Your task to perform on an android device: toggle notification dots Image 0: 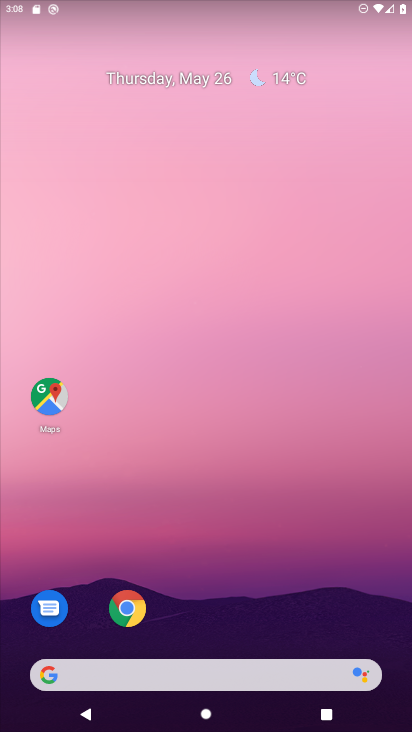
Step 0: drag from (295, 386) to (329, 70)
Your task to perform on an android device: toggle notification dots Image 1: 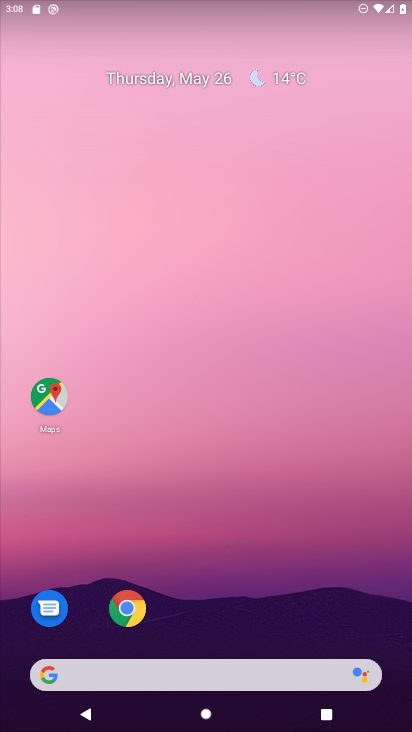
Step 1: drag from (294, 504) to (217, 3)
Your task to perform on an android device: toggle notification dots Image 2: 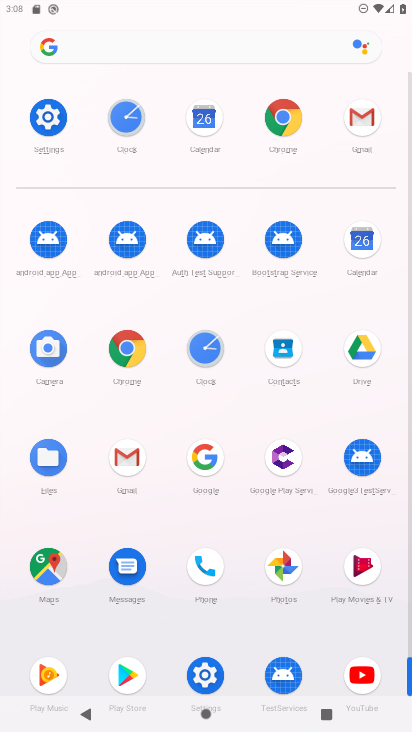
Step 2: click (48, 124)
Your task to perform on an android device: toggle notification dots Image 3: 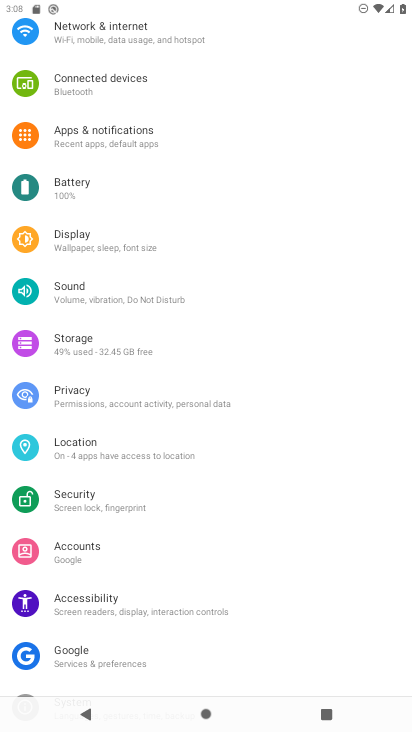
Step 3: click (107, 146)
Your task to perform on an android device: toggle notification dots Image 4: 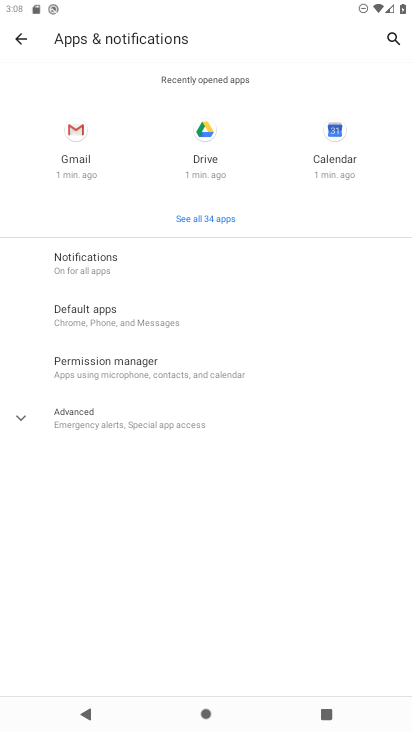
Step 4: click (72, 265)
Your task to perform on an android device: toggle notification dots Image 5: 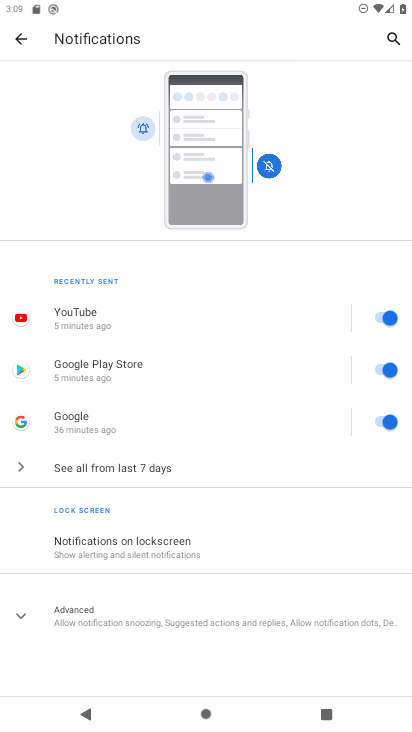
Step 5: drag from (129, 602) to (126, 269)
Your task to perform on an android device: toggle notification dots Image 6: 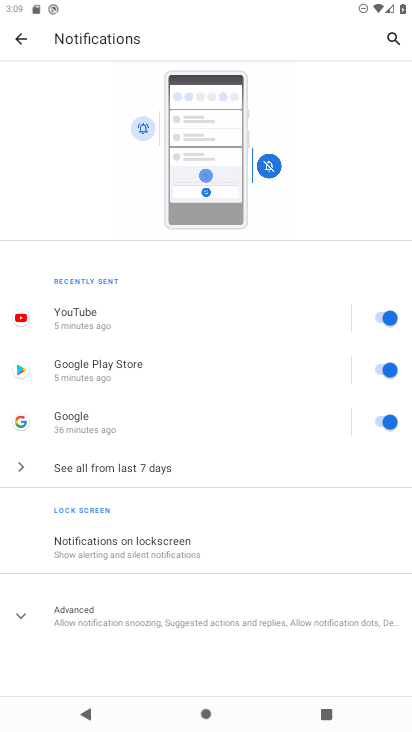
Step 6: click (108, 620)
Your task to perform on an android device: toggle notification dots Image 7: 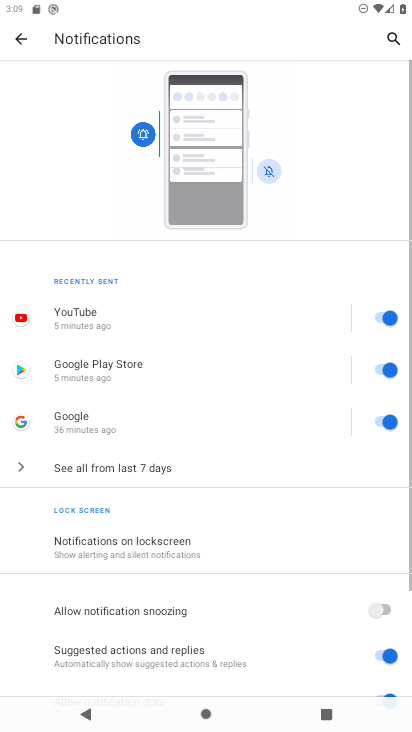
Step 7: drag from (107, 619) to (158, 228)
Your task to perform on an android device: toggle notification dots Image 8: 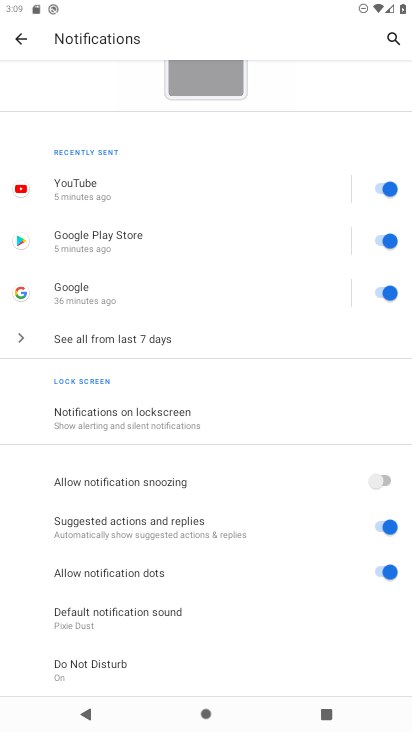
Step 8: click (391, 568)
Your task to perform on an android device: toggle notification dots Image 9: 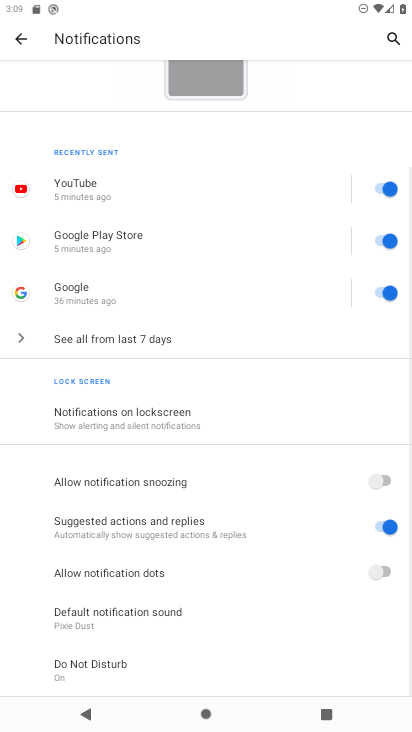
Step 9: task complete